Your task to perform on an android device: turn on notifications settings in the gmail app Image 0: 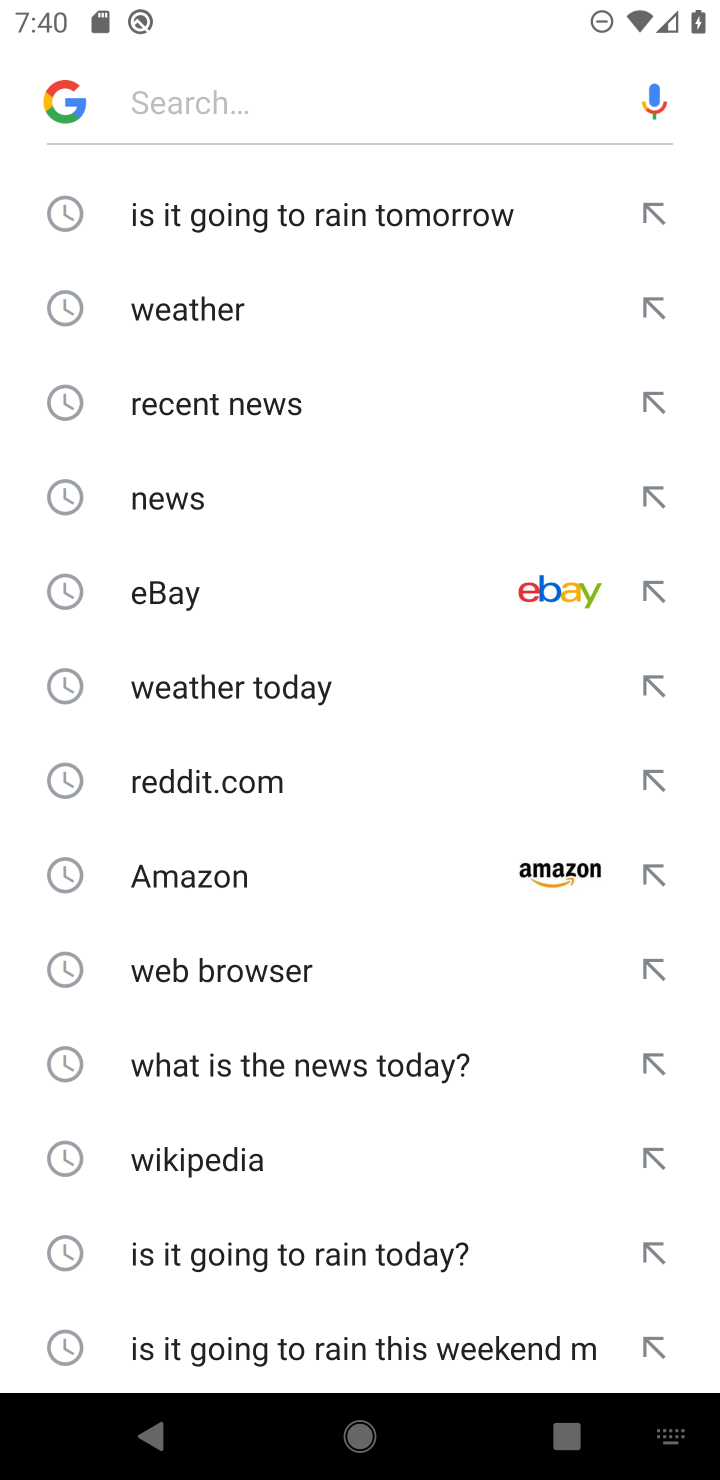
Step 0: press home button
Your task to perform on an android device: turn on notifications settings in the gmail app Image 1: 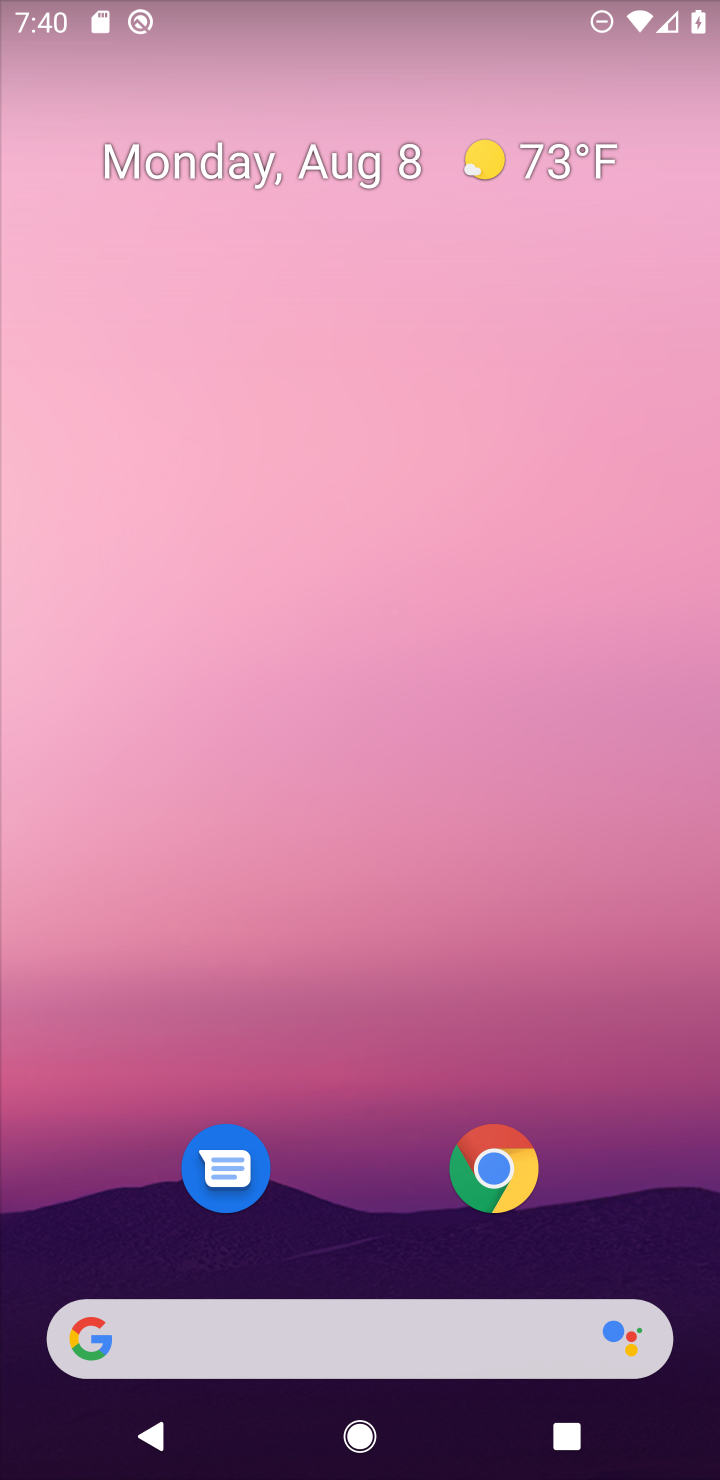
Step 1: drag from (402, 1291) to (630, 123)
Your task to perform on an android device: turn on notifications settings in the gmail app Image 2: 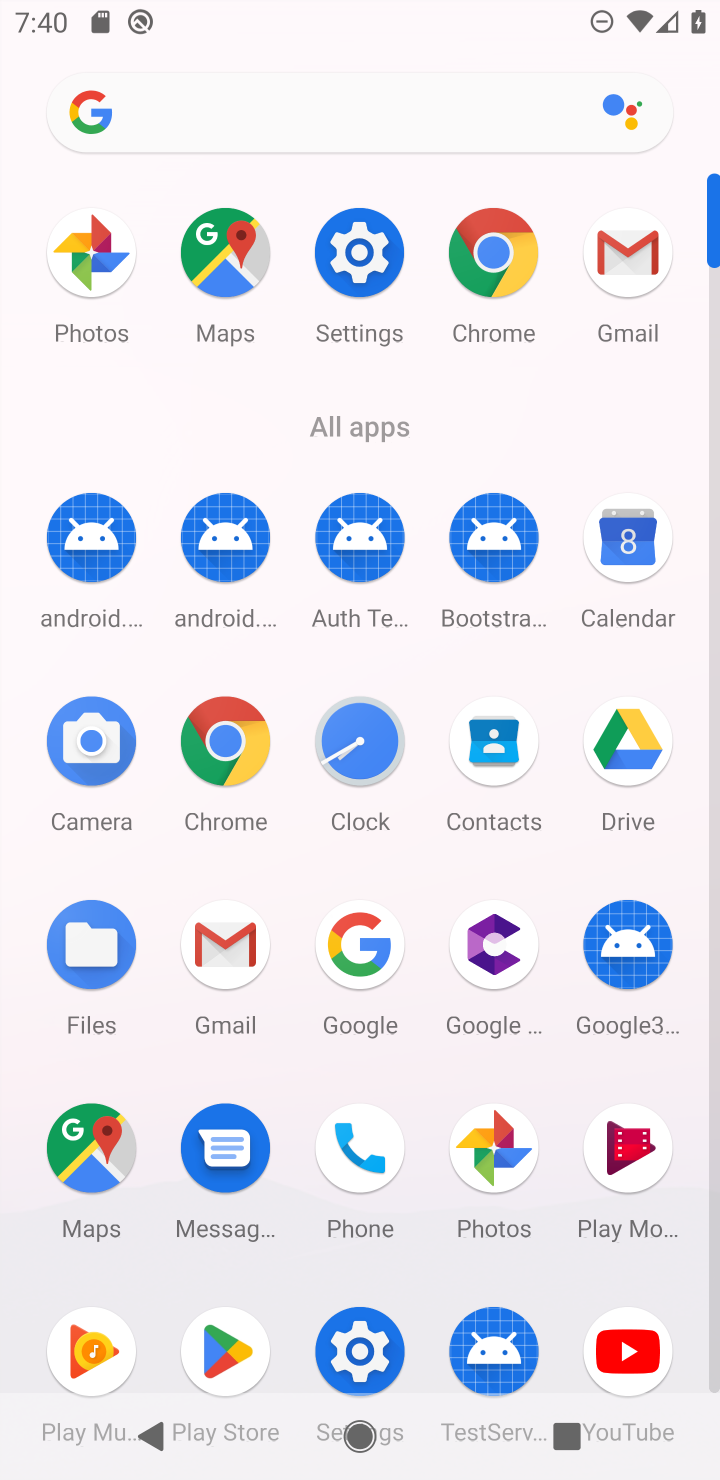
Step 2: click (619, 258)
Your task to perform on an android device: turn on notifications settings in the gmail app Image 3: 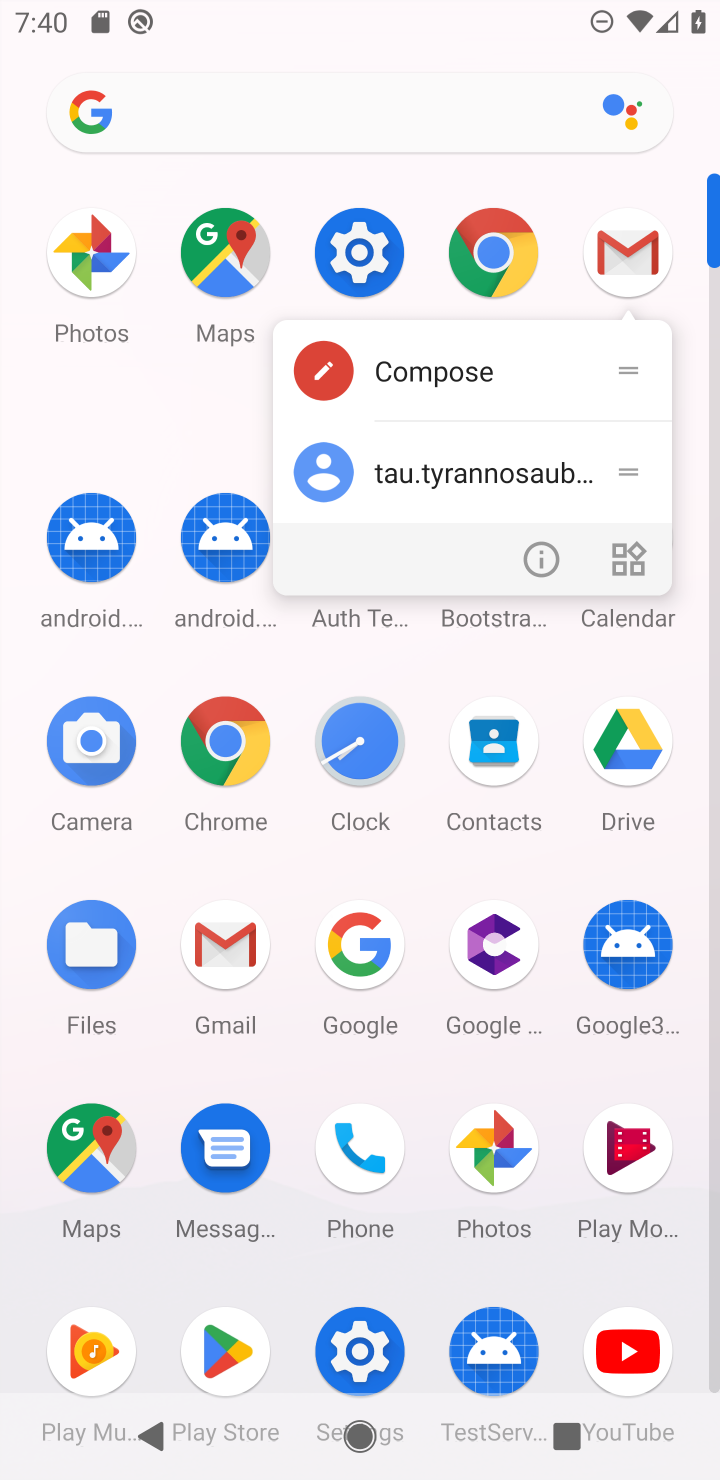
Step 3: click (632, 261)
Your task to perform on an android device: turn on notifications settings in the gmail app Image 4: 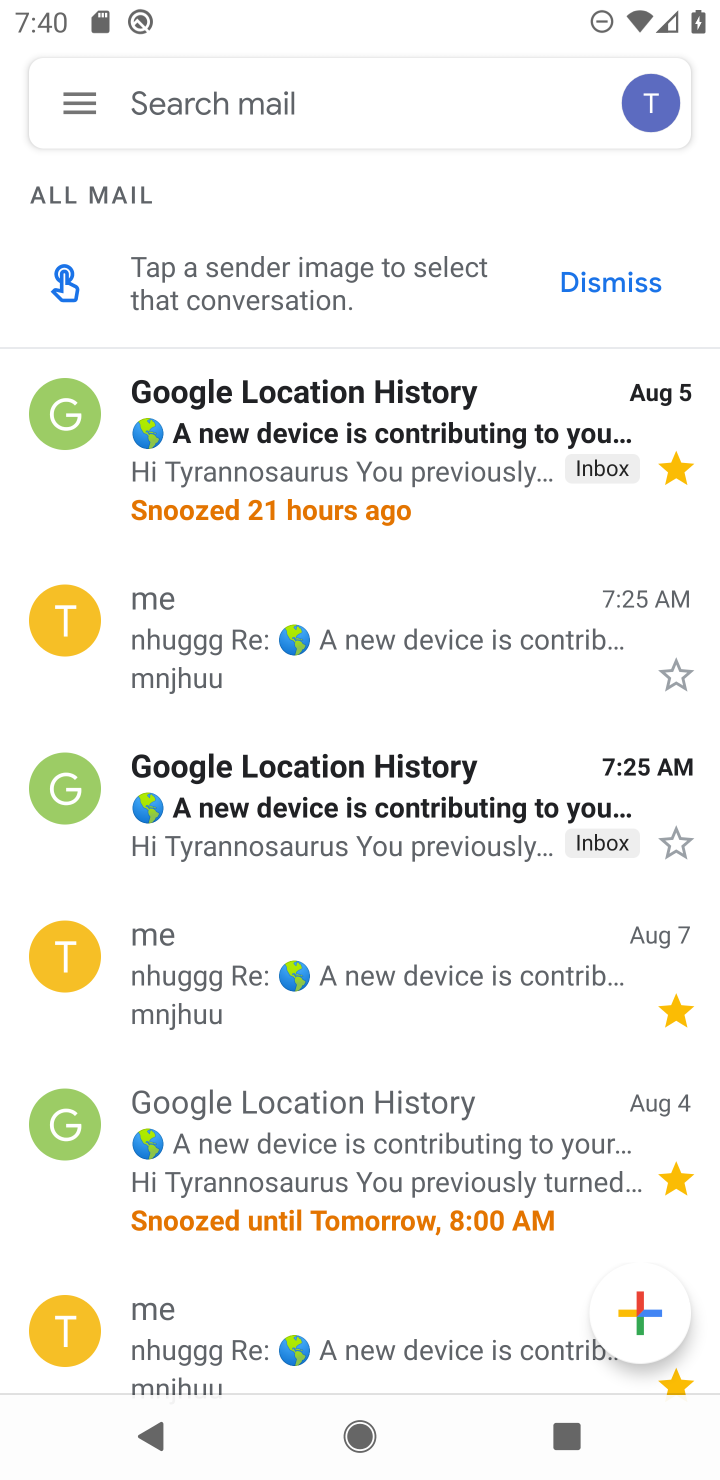
Step 4: click (78, 86)
Your task to perform on an android device: turn on notifications settings in the gmail app Image 5: 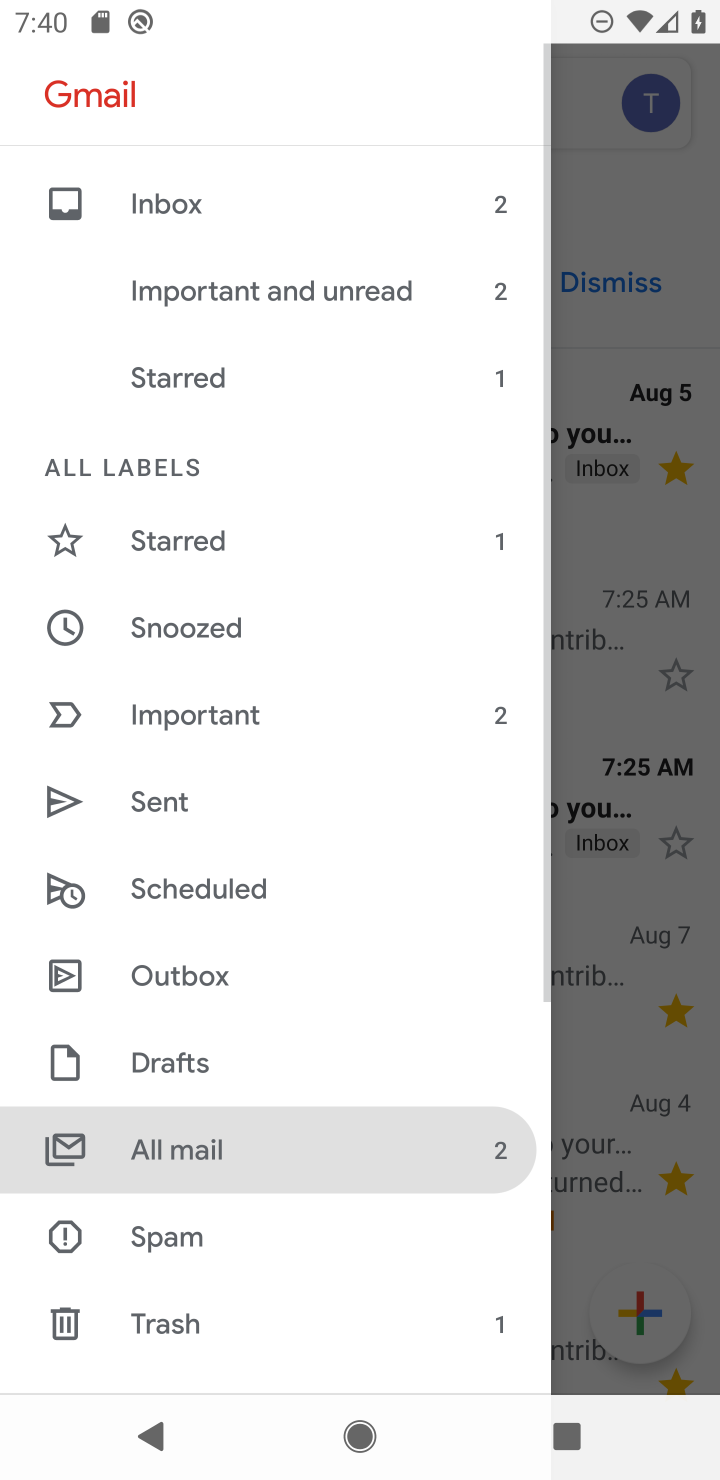
Step 5: drag from (363, 1198) to (541, 100)
Your task to perform on an android device: turn on notifications settings in the gmail app Image 6: 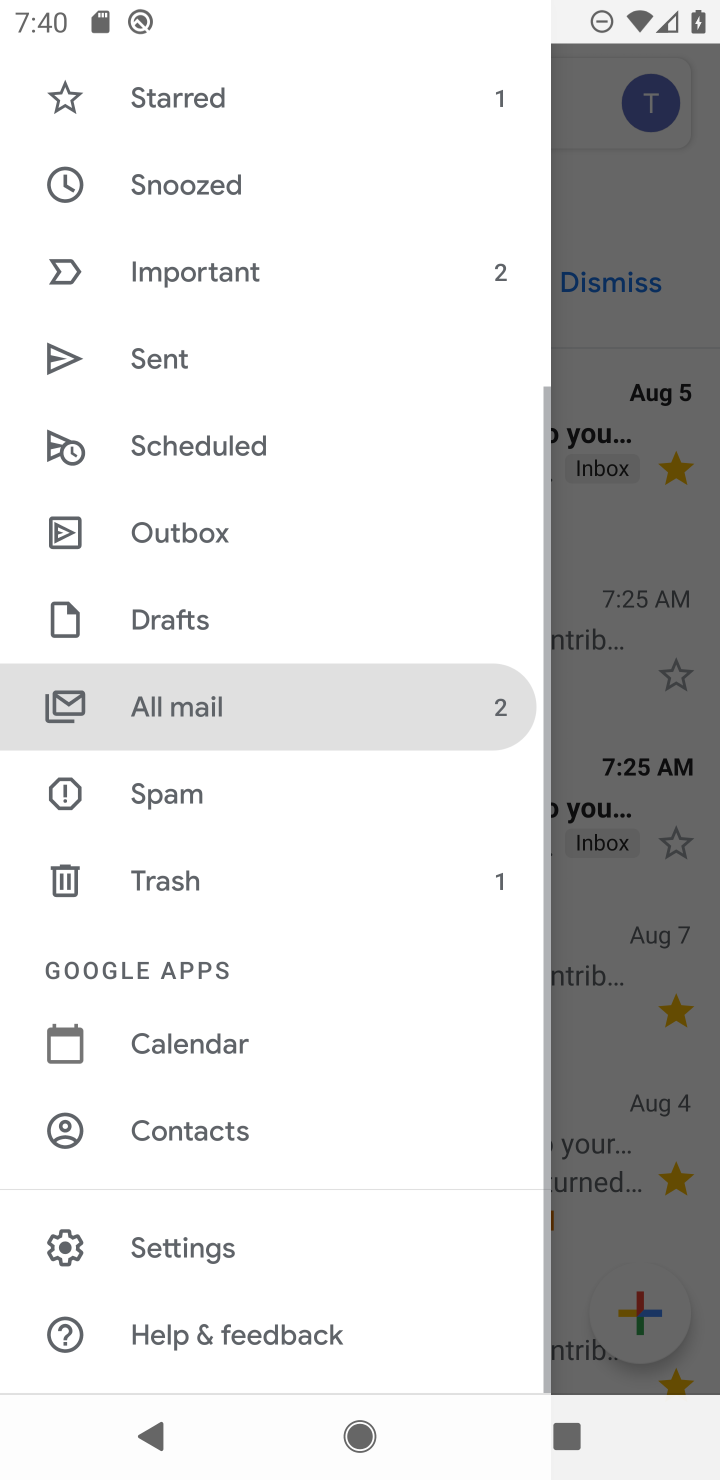
Step 6: click (222, 1249)
Your task to perform on an android device: turn on notifications settings in the gmail app Image 7: 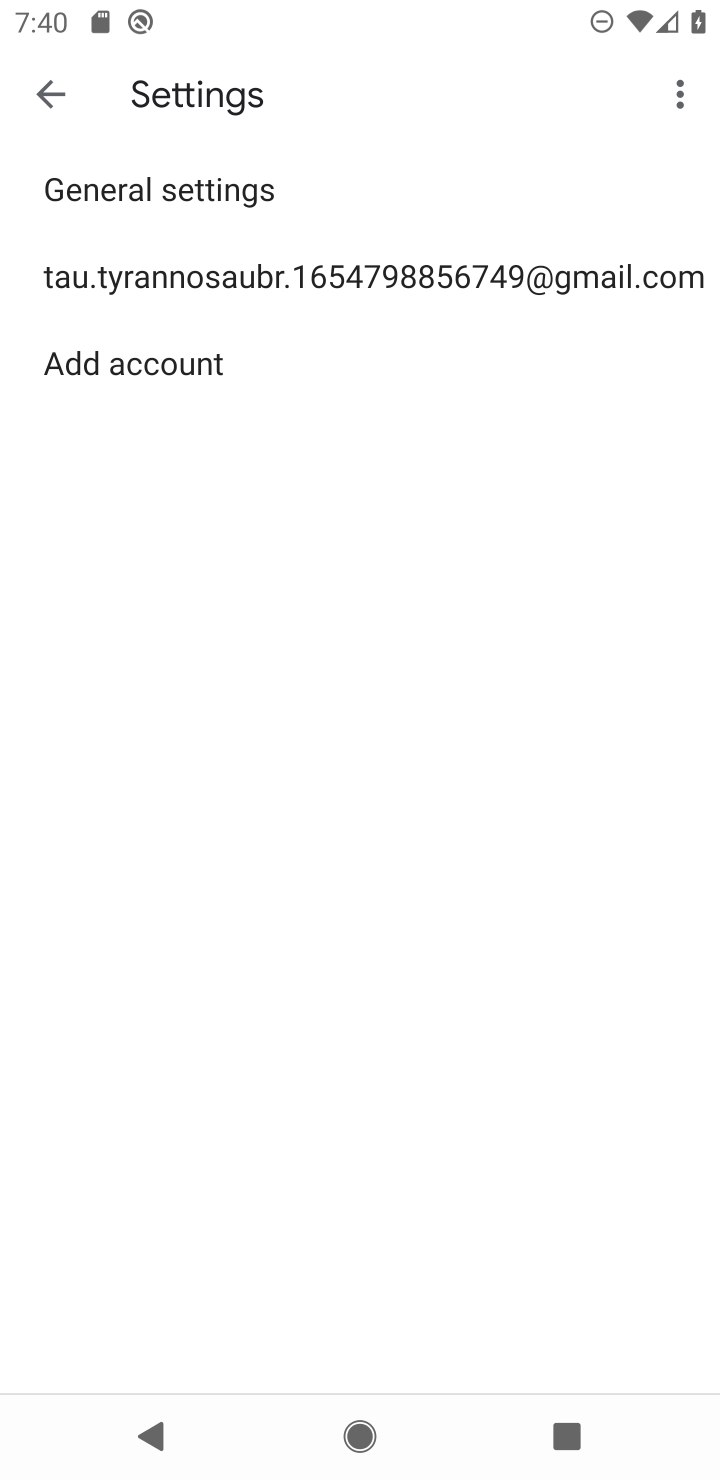
Step 7: click (302, 273)
Your task to perform on an android device: turn on notifications settings in the gmail app Image 8: 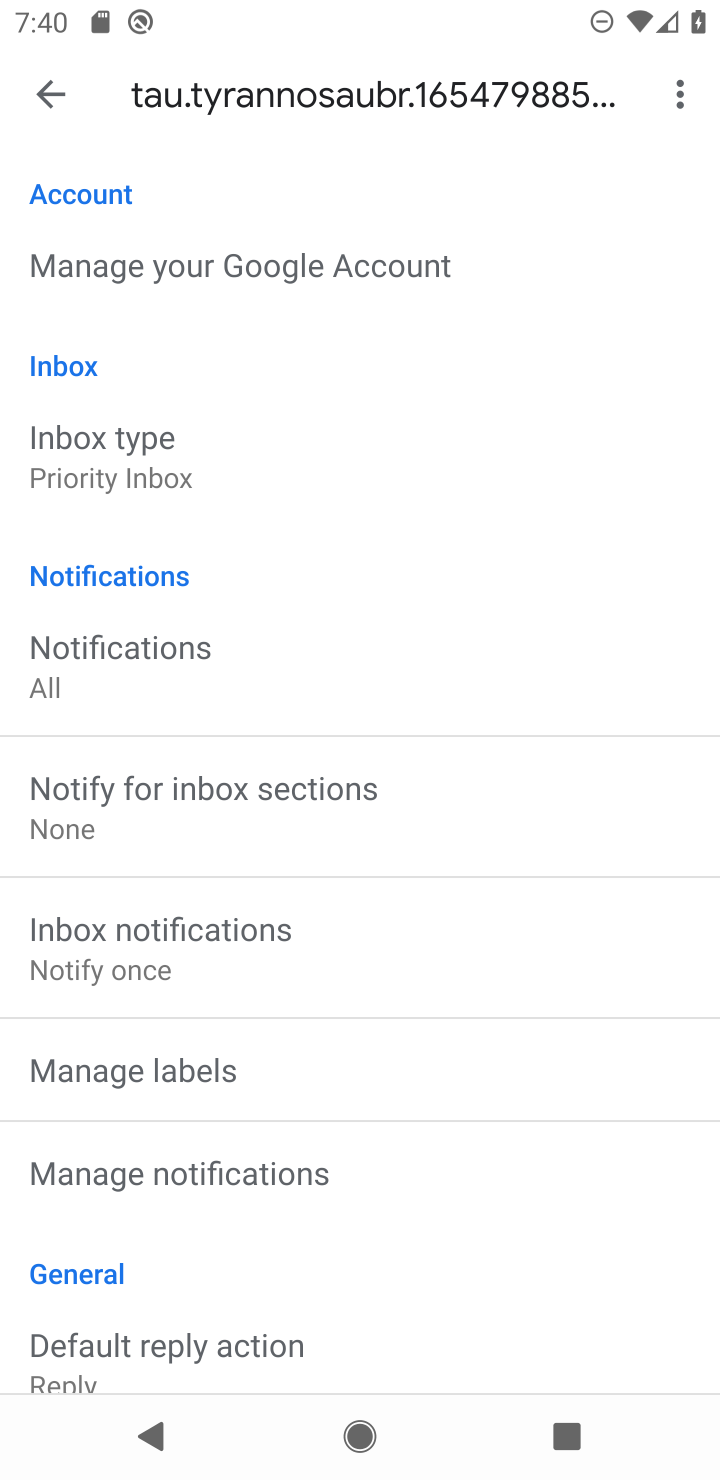
Step 8: click (143, 677)
Your task to perform on an android device: turn on notifications settings in the gmail app Image 9: 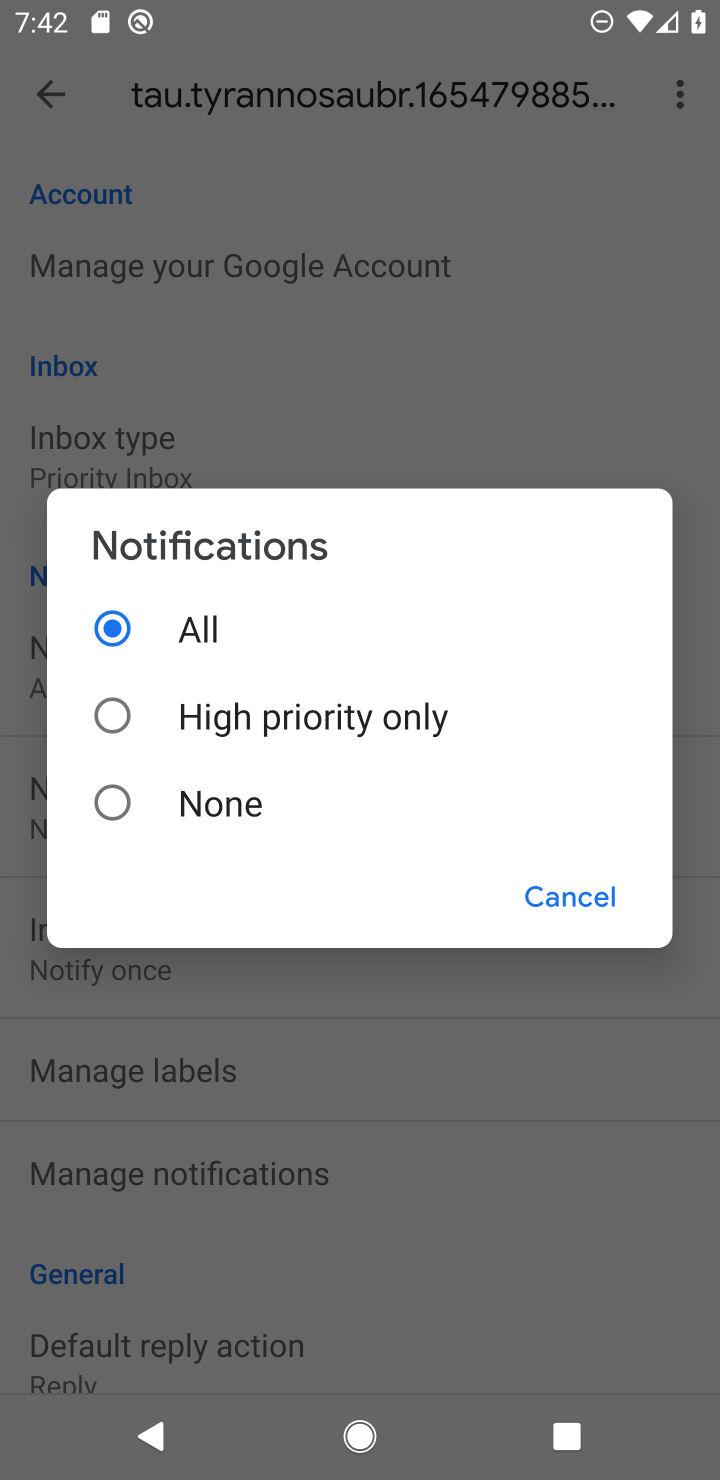
Step 9: task complete